Your task to perform on an android device: toggle airplane mode Image 0: 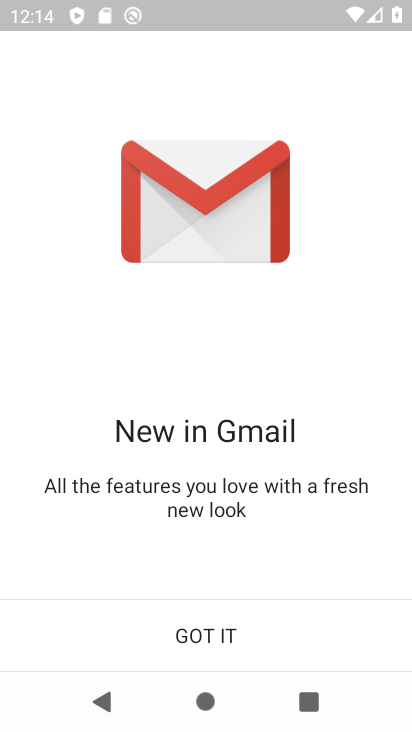
Step 0: press home button
Your task to perform on an android device: toggle airplane mode Image 1: 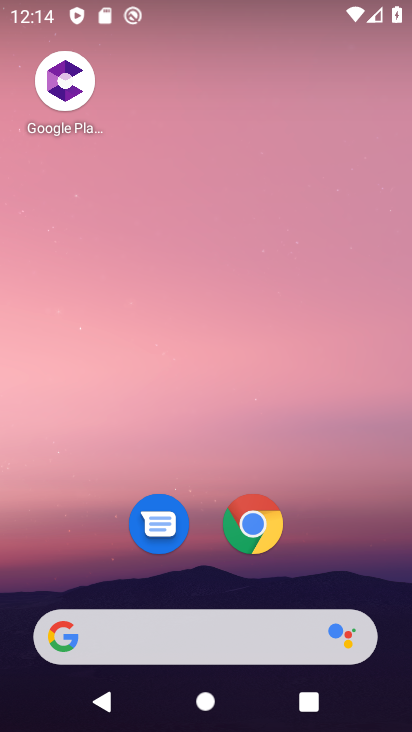
Step 1: drag from (308, 466) to (319, 70)
Your task to perform on an android device: toggle airplane mode Image 2: 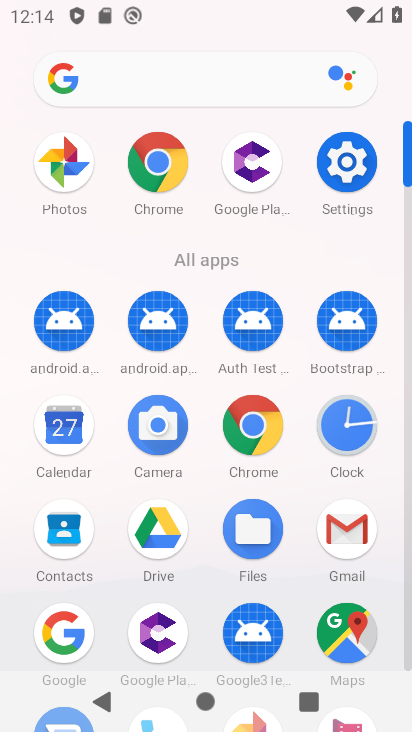
Step 2: click (338, 158)
Your task to perform on an android device: toggle airplane mode Image 3: 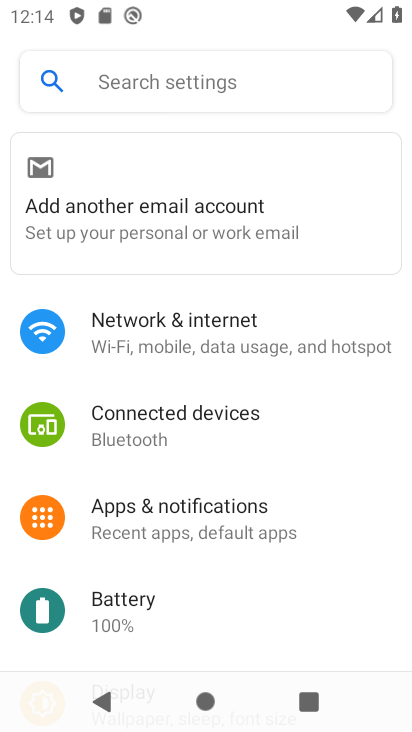
Step 3: click (188, 326)
Your task to perform on an android device: toggle airplane mode Image 4: 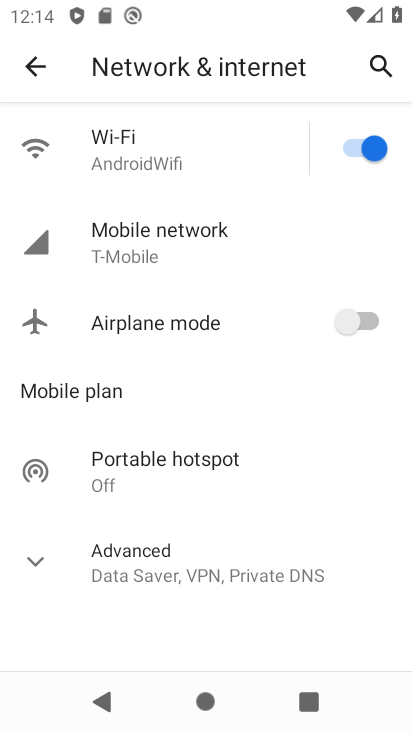
Step 4: click (362, 318)
Your task to perform on an android device: toggle airplane mode Image 5: 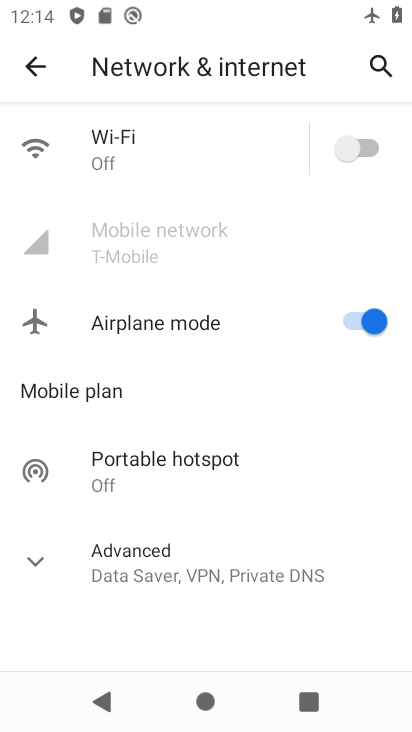
Step 5: task complete